Your task to perform on an android device: turn on translation in the chrome app Image 0: 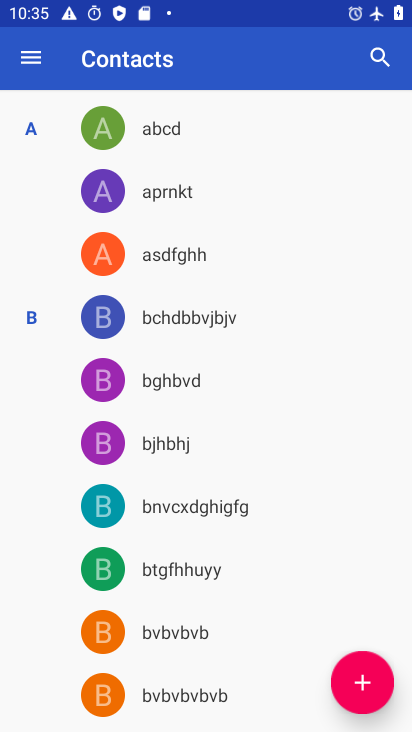
Step 0: press home button
Your task to perform on an android device: turn on translation in the chrome app Image 1: 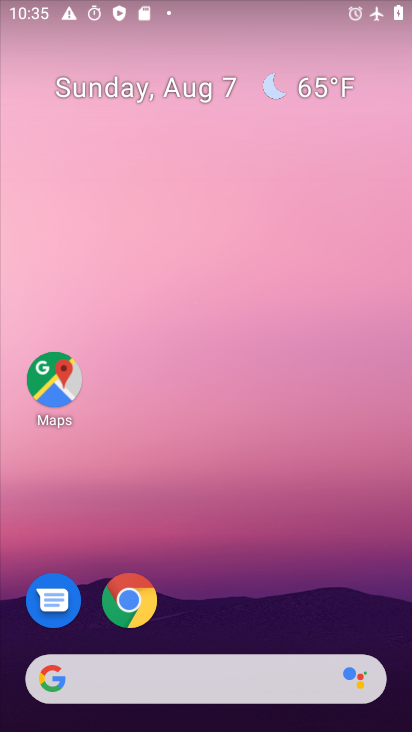
Step 1: drag from (289, 396) to (311, 129)
Your task to perform on an android device: turn on translation in the chrome app Image 2: 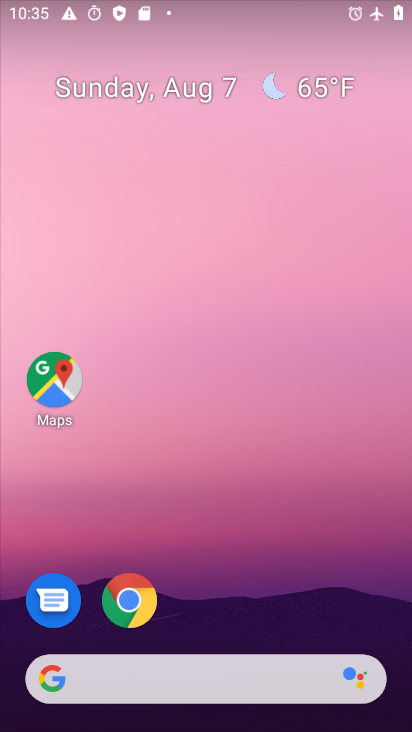
Step 2: drag from (224, 557) to (232, 78)
Your task to perform on an android device: turn on translation in the chrome app Image 3: 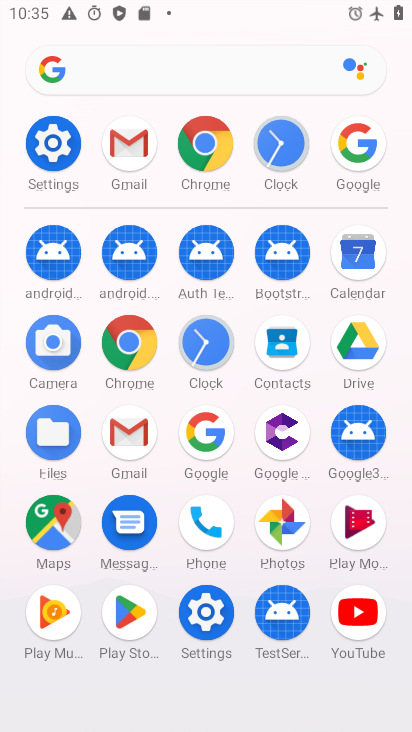
Step 3: click (213, 142)
Your task to perform on an android device: turn on translation in the chrome app Image 4: 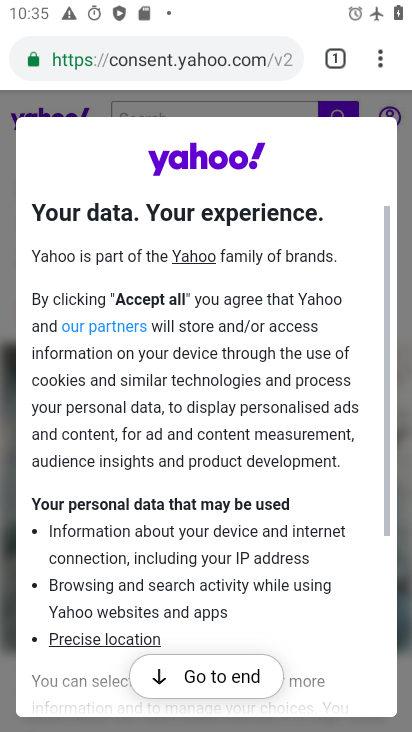
Step 4: click (386, 63)
Your task to perform on an android device: turn on translation in the chrome app Image 5: 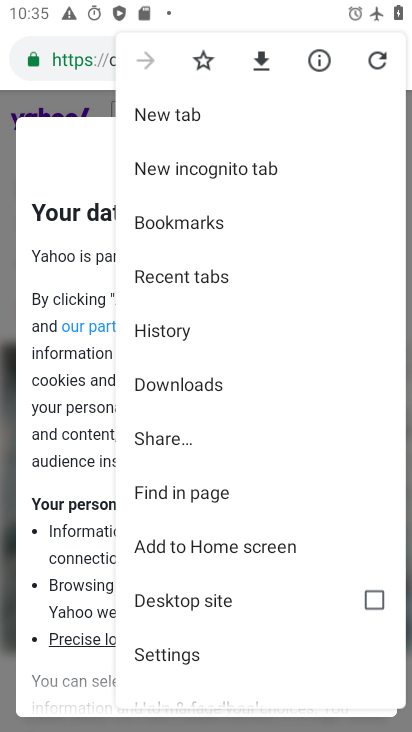
Step 5: task complete